Your task to perform on an android device: Open calendar and show me the third week of next month Image 0: 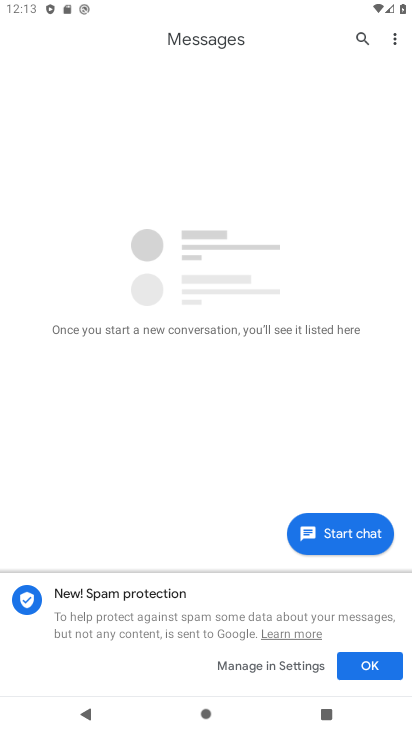
Step 0: press home button
Your task to perform on an android device: Open calendar and show me the third week of next month Image 1: 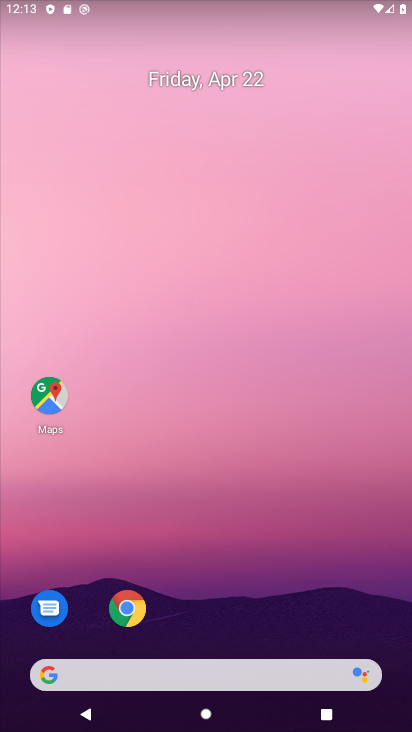
Step 1: drag from (255, 615) to (176, 24)
Your task to perform on an android device: Open calendar and show me the third week of next month Image 2: 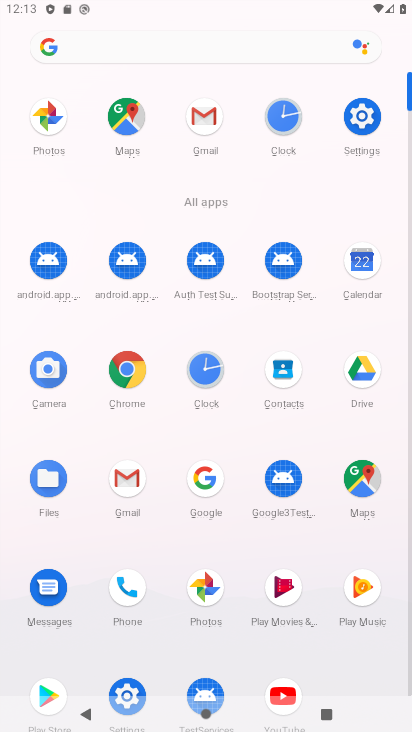
Step 2: drag from (161, 471) to (168, 192)
Your task to perform on an android device: Open calendar and show me the third week of next month Image 3: 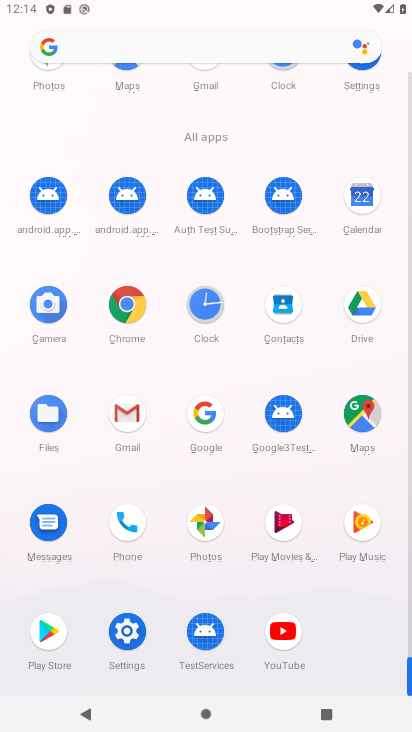
Step 3: click (371, 202)
Your task to perform on an android device: Open calendar and show me the third week of next month Image 4: 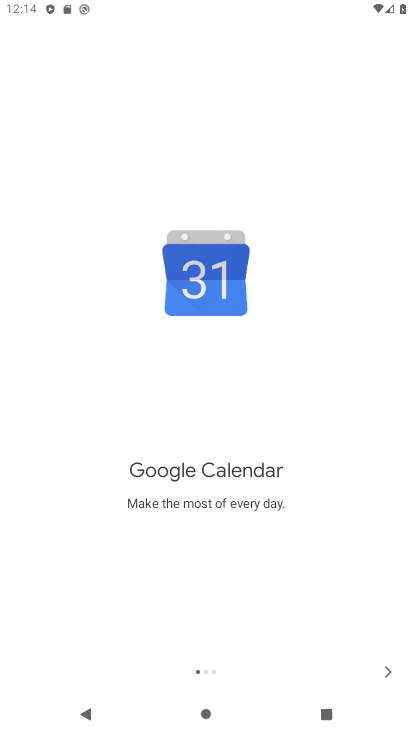
Step 4: click (381, 670)
Your task to perform on an android device: Open calendar and show me the third week of next month Image 5: 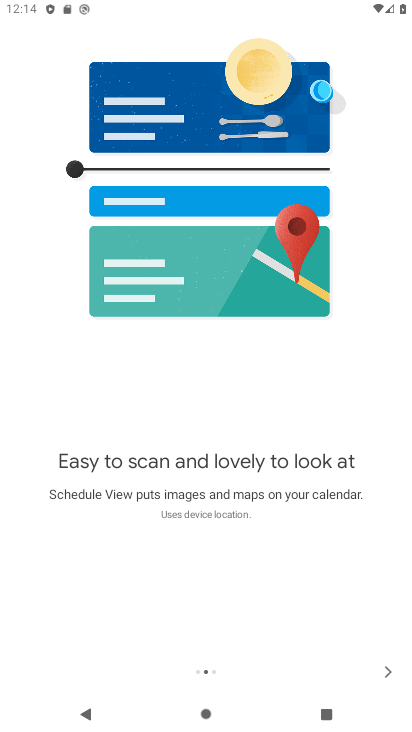
Step 5: click (385, 672)
Your task to perform on an android device: Open calendar and show me the third week of next month Image 6: 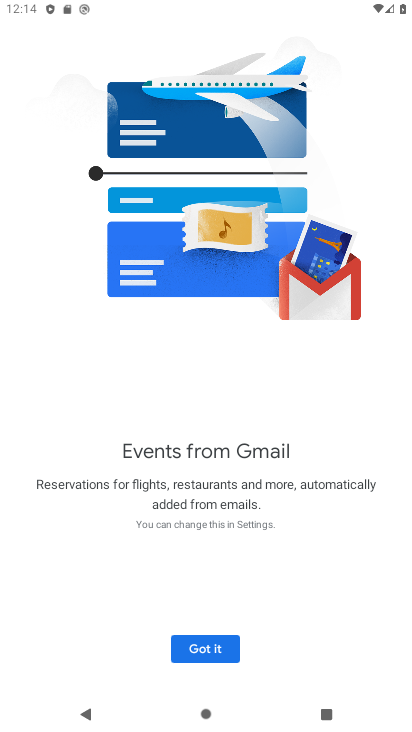
Step 6: click (224, 644)
Your task to perform on an android device: Open calendar and show me the third week of next month Image 7: 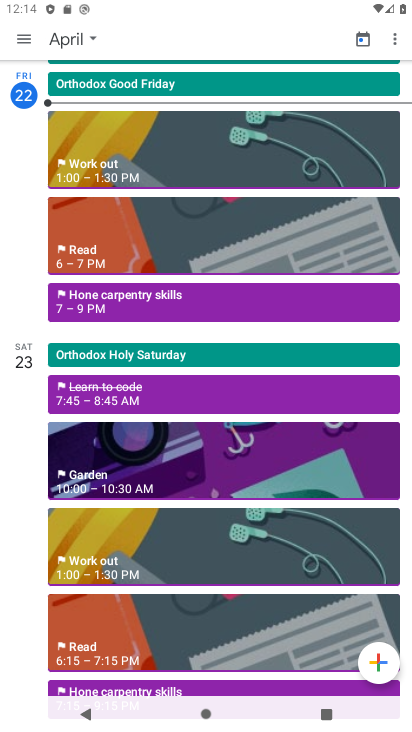
Step 7: click (74, 30)
Your task to perform on an android device: Open calendar and show me the third week of next month Image 8: 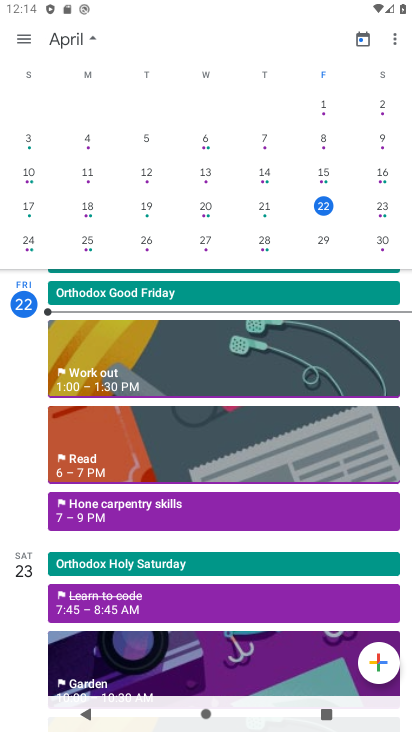
Step 8: drag from (334, 188) to (2, 160)
Your task to perform on an android device: Open calendar and show me the third week of next month Image 9: 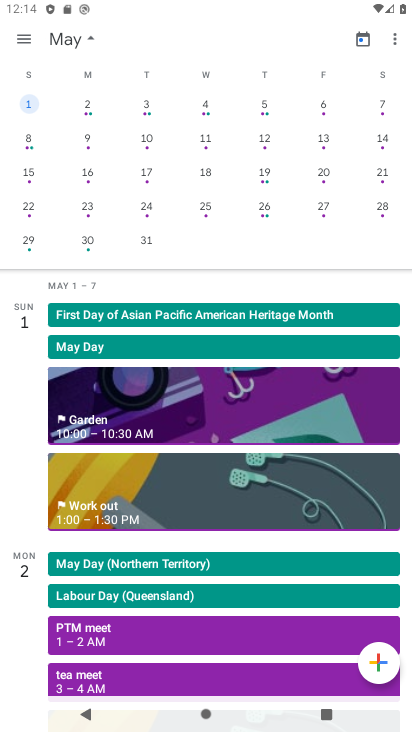
Step 9: click (148, 169)
Your task to perform on an android device: Open calendar and show me the third week of next month Image 10: 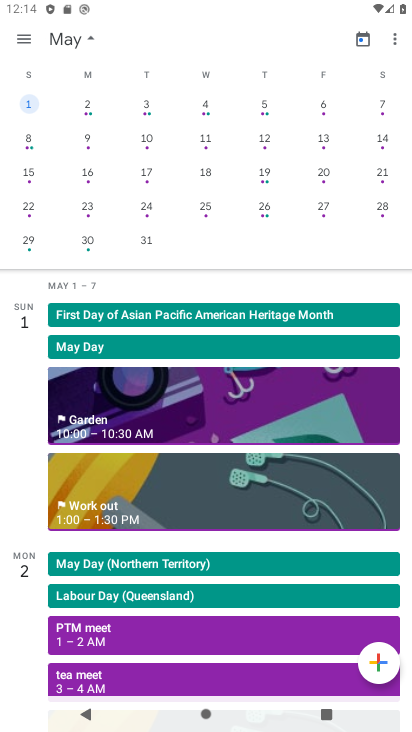
Step 10: click (148, 169)
Your task to perform on an android device: Open calendar and show me the third week of next month Image 11: 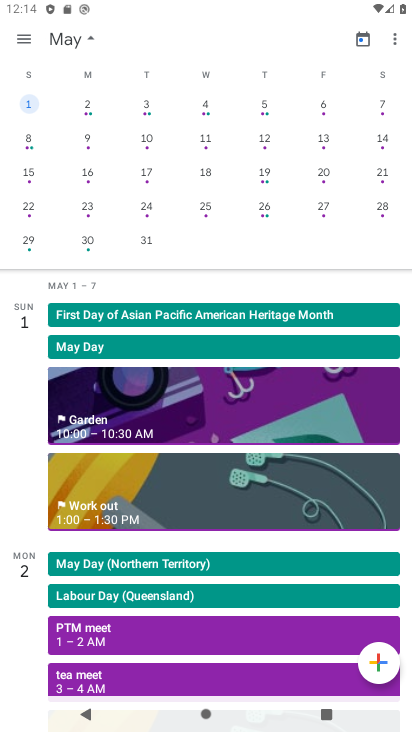
Step 11: click (145, 175)
Your task to perform on an android device: Open calendar and show me the third week of next month Image 12: 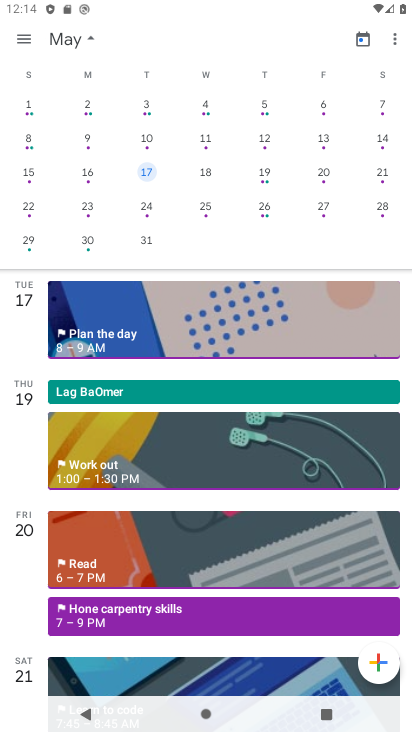
Step 12: click (20, 37)
Your task to perform on an android device: Open calendar and show me the third week of next month Image 13: 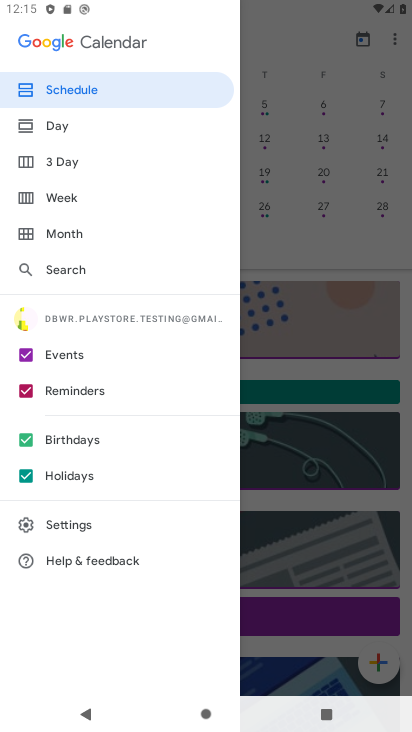
Step 13: click (77, 198)
Your task to perform on an android device: Open calendar and show me the third week of next month Image 14: 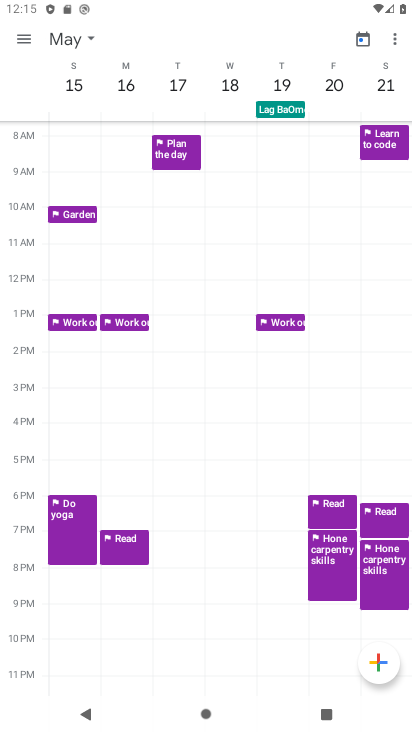
Step 14: task complete